Your task to perform on an android device: check the backup settings in the google photos Image 0: 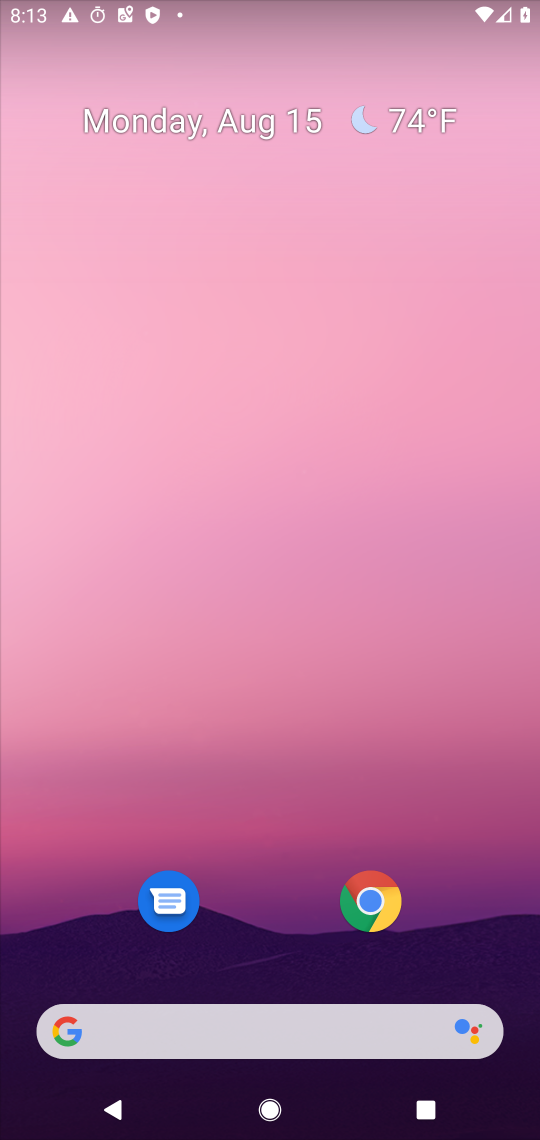
Step 0: drag from (230, 873) to (190, 155)
Your task to perform on an android device: check the backup settings in the google photos Image 1: 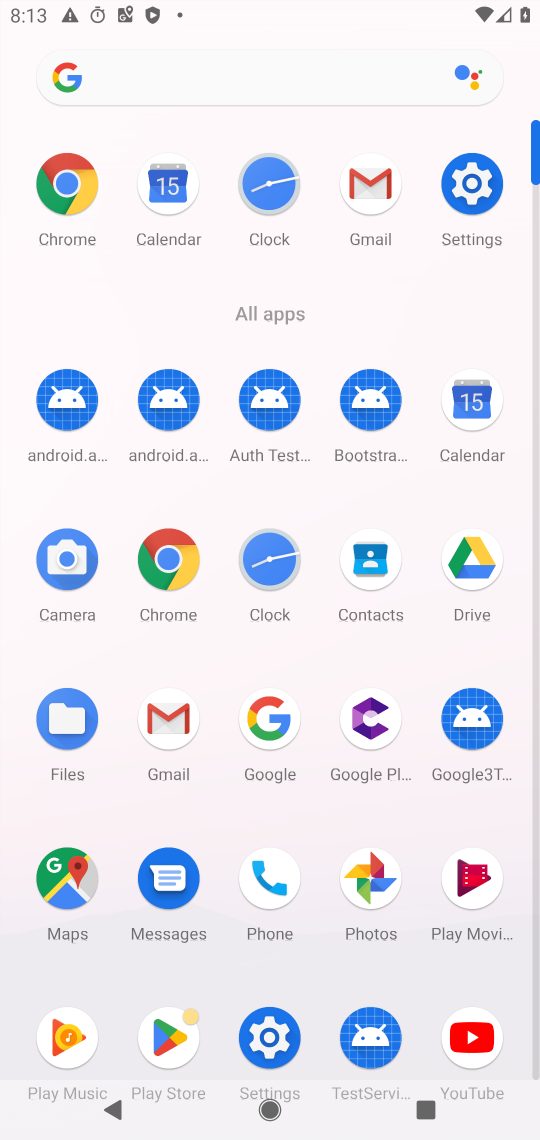
Step 1: click (362, 887)
Your task to perform on an android device: check the backup settings in the google photos Image 2: 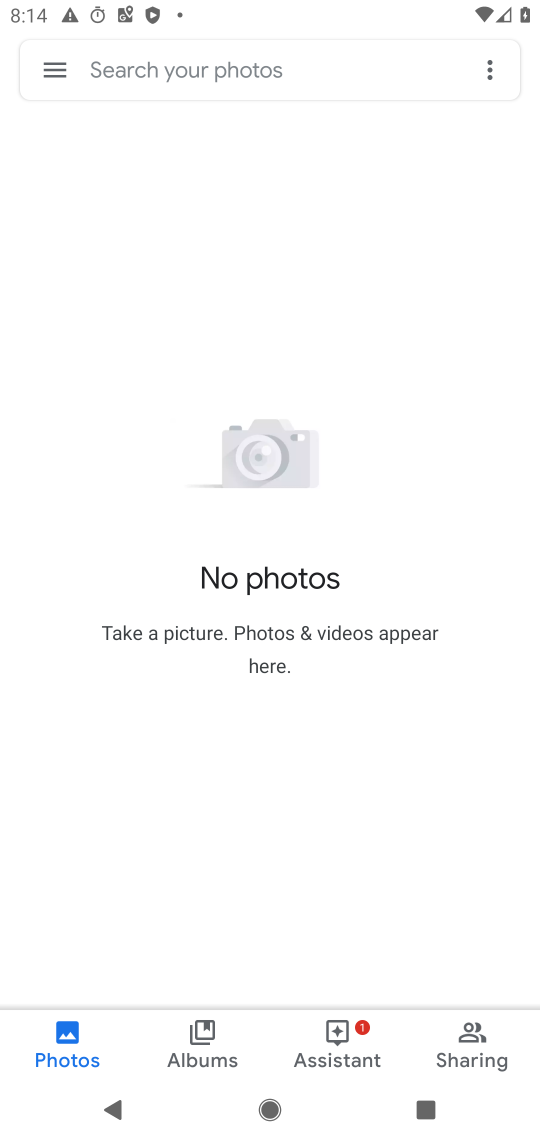
Step 2: click (56, 71)
Your task to perform on an android device: check the backup settings in the google photos Image 3: 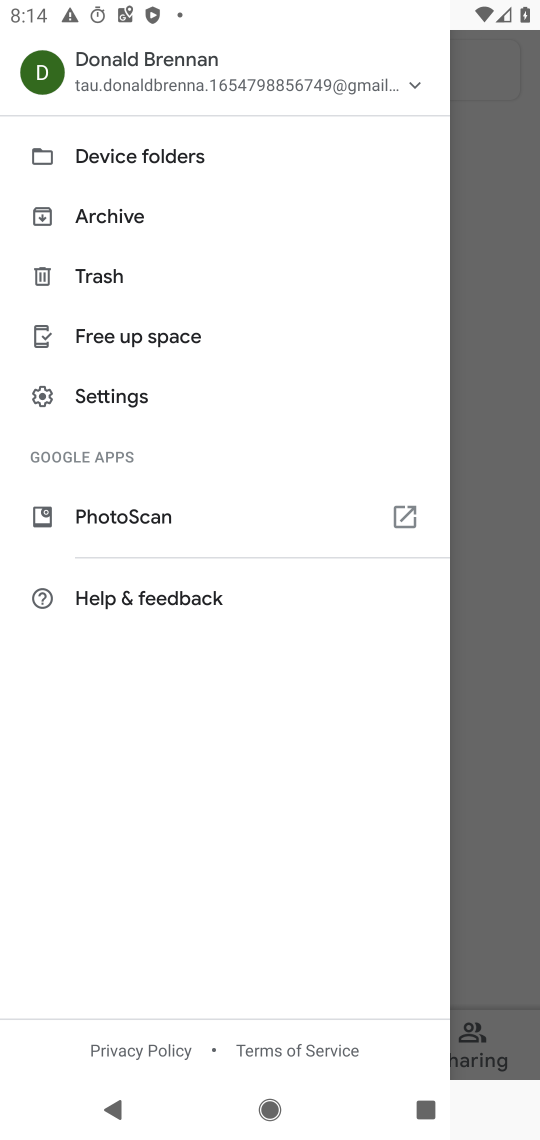
Step 3: click (129, 402)
Your task to perform on an android device: check the backup settings in the google photos Image 4: 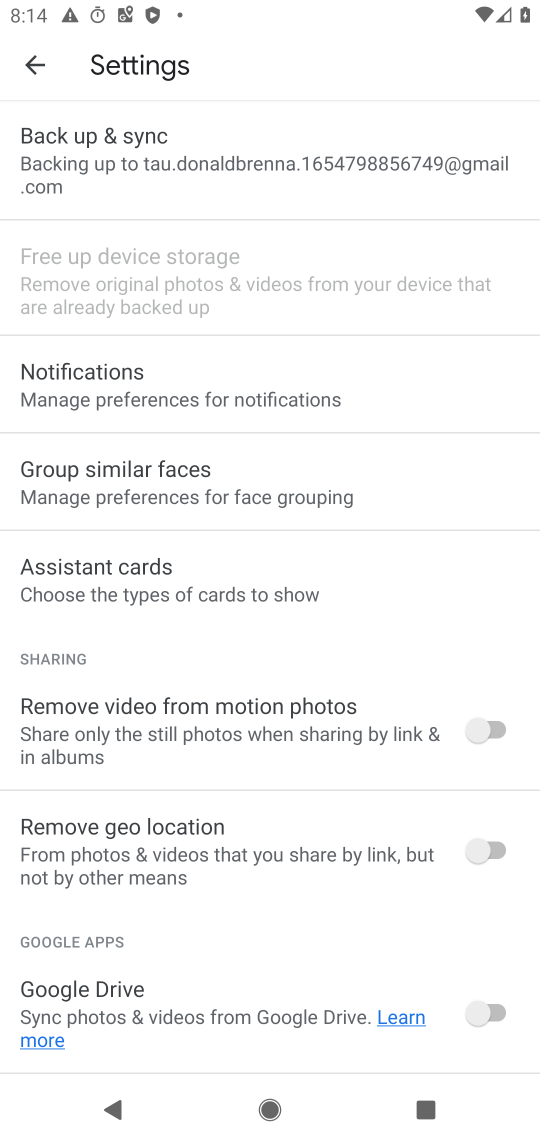
Step 4: click (201, 166)
Your task to perform on an android device: check the backup settings in the google photos Image 5: 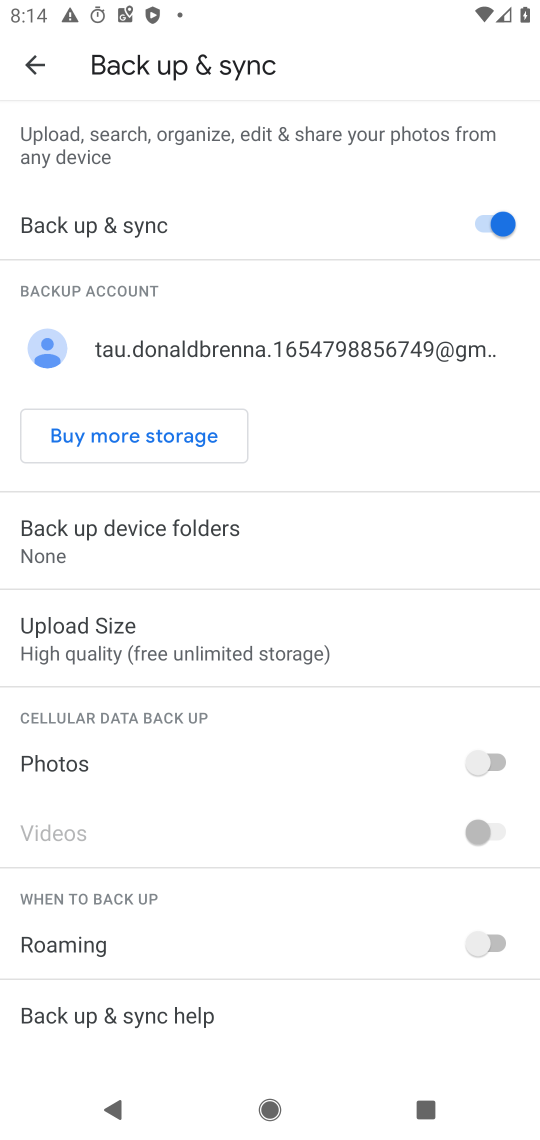
Step 5: task complete